Your task to perform on an android device: Do I have any events today? Image 0: 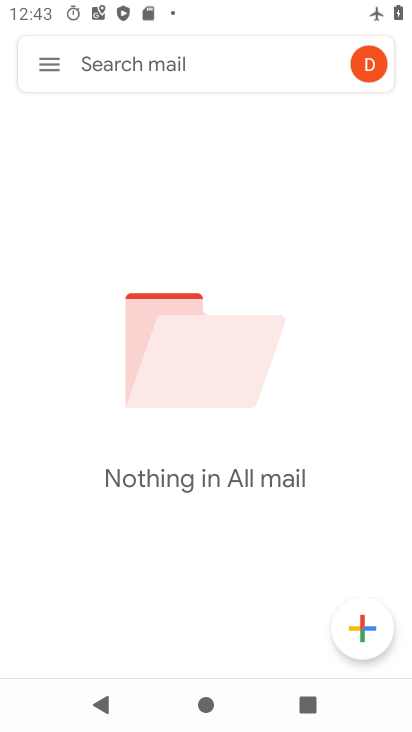
Step 0: press home button
Your task to perform on an android device: Do I have any events today? Image 1: 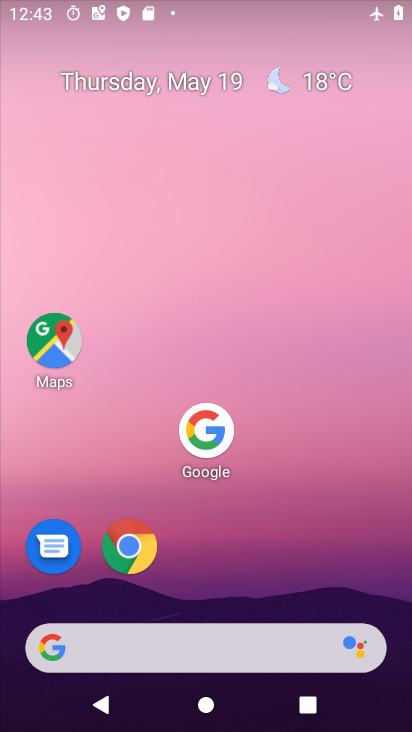
Step 1: drag from (239, 567) to (189, 97)
Your task to perform on an android device: Do I have any events today? Image 2: 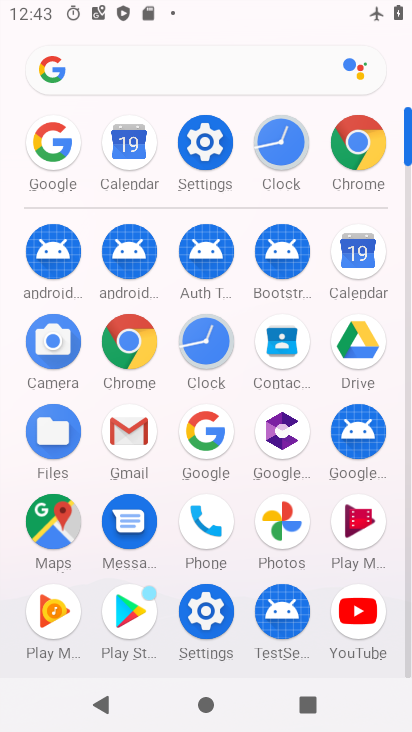
Step 2: click (350, 271)
Your task to perform on an android device: Do I have any events today? Image 3: 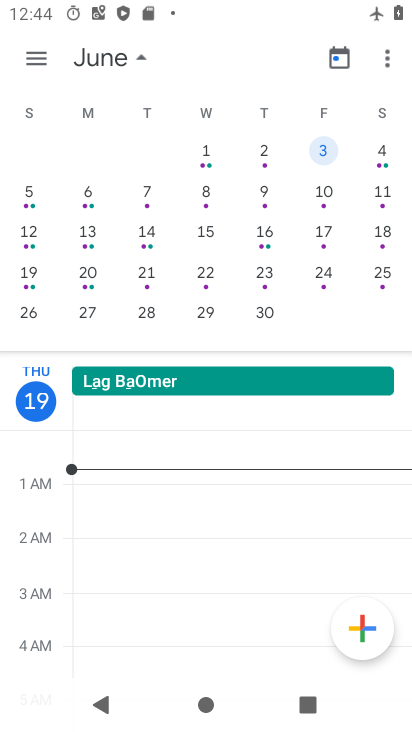
Step 3: drag from (60, 278) to (408, 246)
Your task to perform on an android device: Do I have any events today? Image 4: 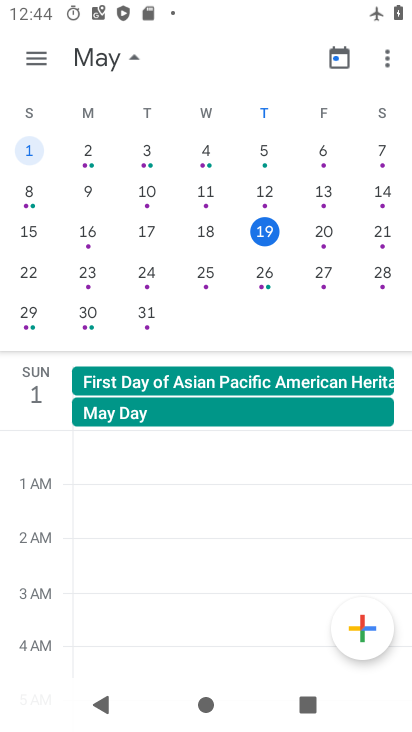
Step 4: click (272, 234)
Your task to perform on an android device: Do I have any events today? Image 5: 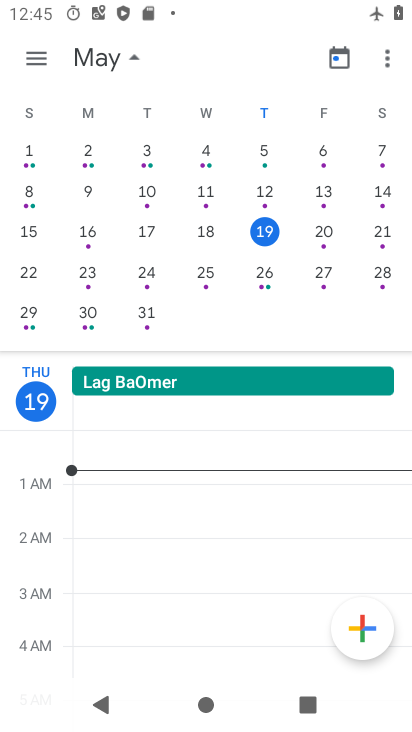
Step 5: task complete